Your task to perform on an android device: Open sound settings Image 0: 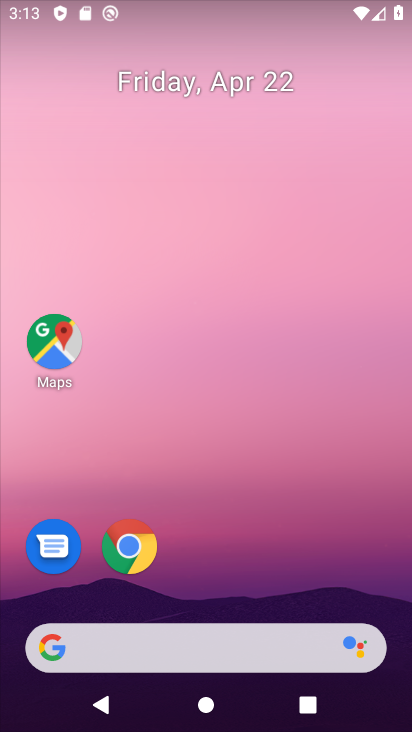
Step 0: drag from (246, 560) to (260, 151)
Your task to perform on an android device: Open sound settings Image 1: 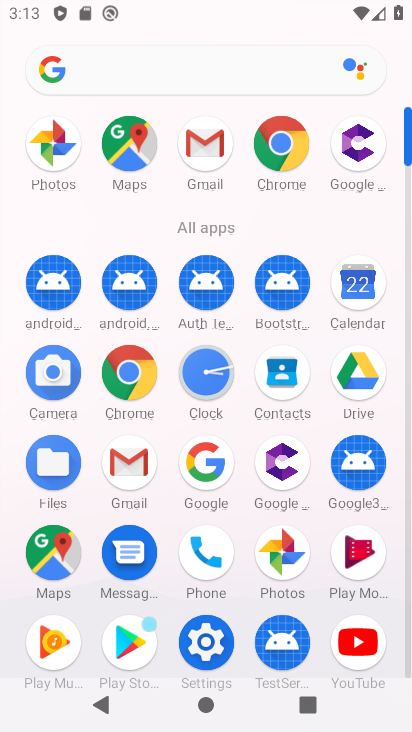
Step 1: click (216, 646)
Your task to perform on an android device: Open sound settings Image 2: 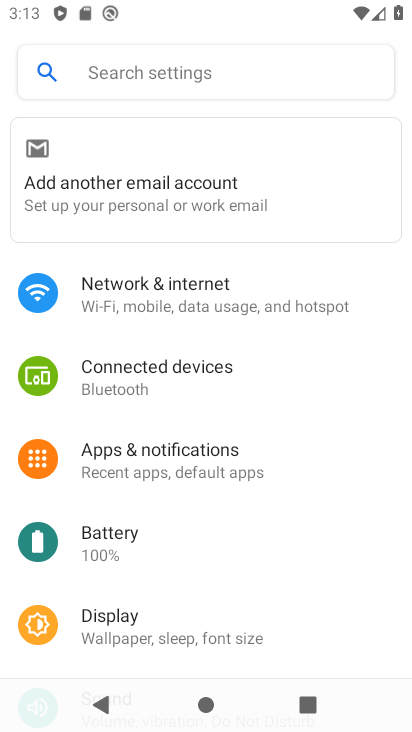
Step 2: drag from (198, 579) to (258, 238)
Your task to perform on an android device: Open sound settings Image 3: 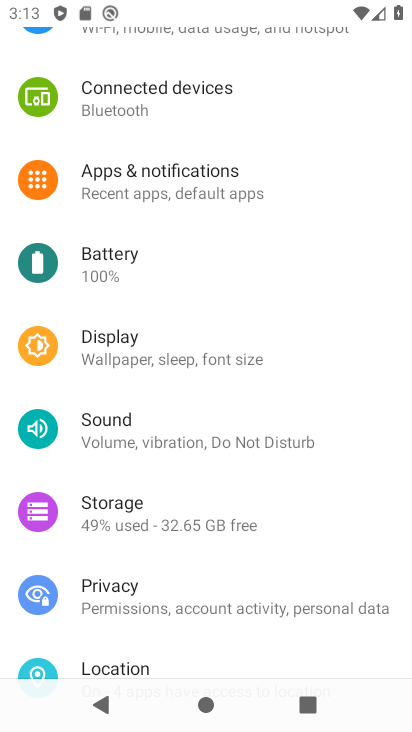
Step 3: click (197, 450)
Your task to perform on an android device: Open sound settings Image 4: 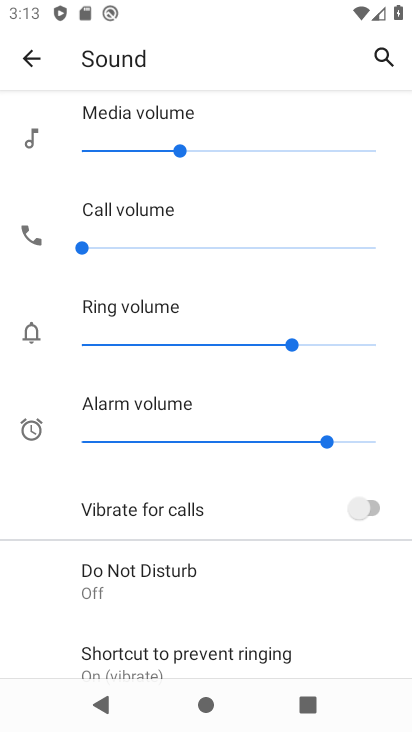
Step 4: task complete